Your task to perform on an android device: turn notification dots on Image 0: 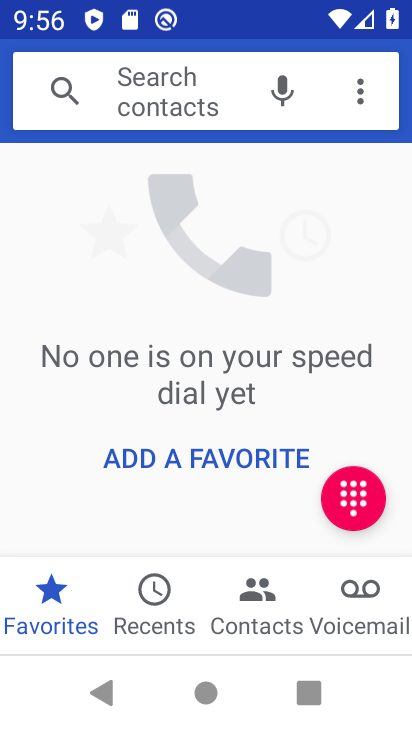
Step 0: press home button
Your task to perform on an android device: turn notification dots on Image 1: 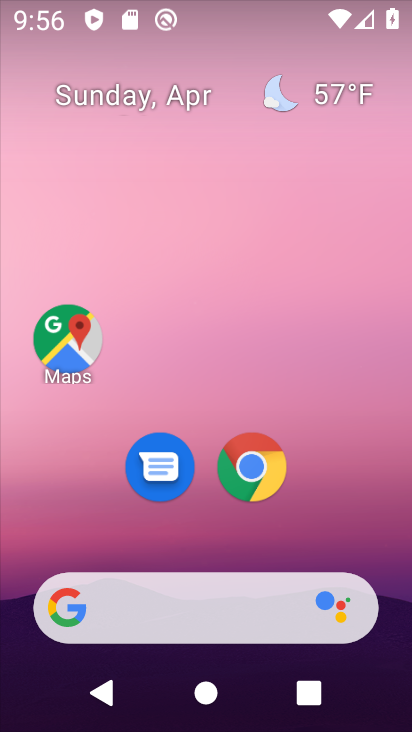
Step 1: drag from (360, 516) to (260, 46)
Your task to perform on an android device: turn notification dots on Image 2: 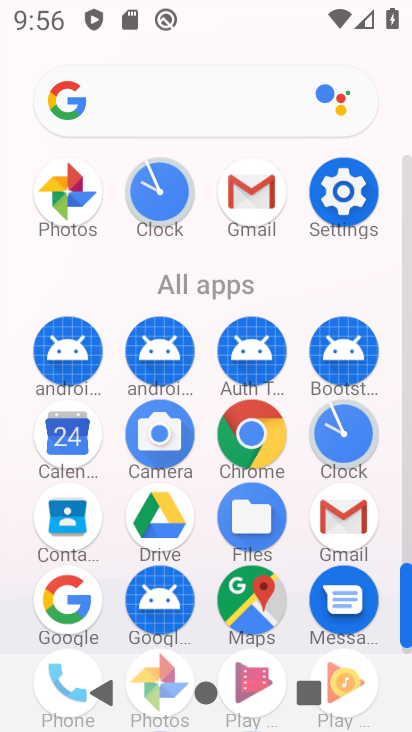
Step 2: click (362, 204)
Your task to perform on an android device: turn notification dots on Image 3: 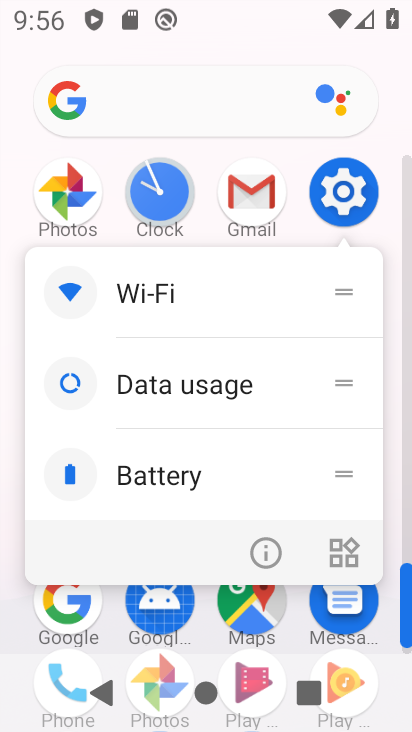
Step 3: click (354, 186)
Your task to perform on an android device: turn notification dots on Image 4: 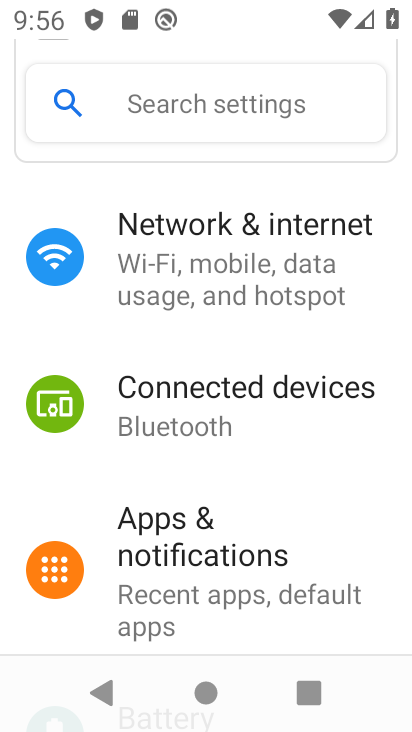
Step 4: drag from (205, 586) to (157, 118)
Your task to perform on an android device: turn notification dots on Image 5: 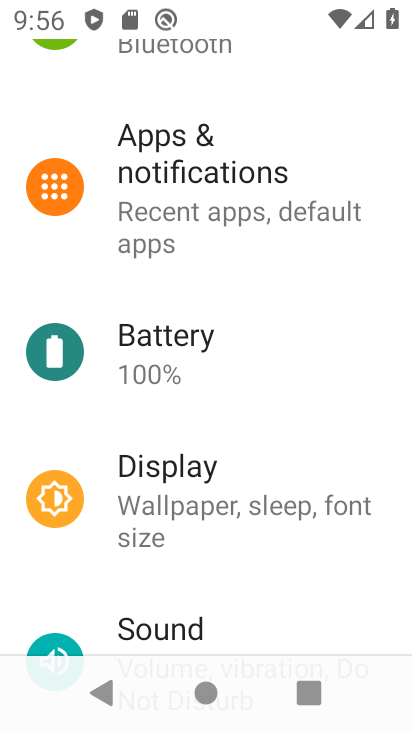
Step 5: drag from (228, 617) to (189, 72)
Your task to perform on an android device: turn notification dots on Image 6: 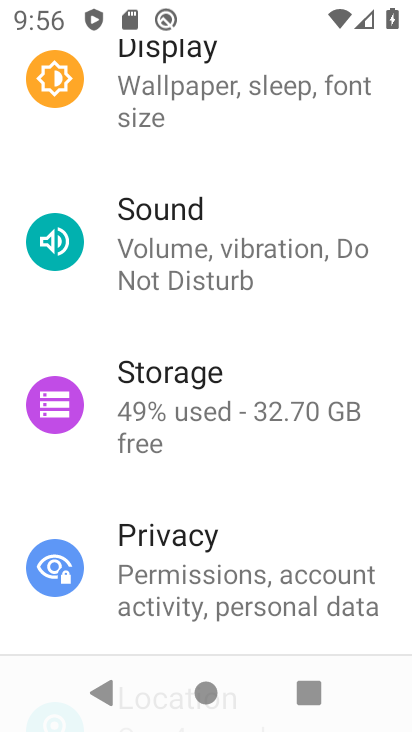
Step 6: drag from (170, 475) to (109, 150)
Your task to perform on an android device: turn notification dots on Image 7: 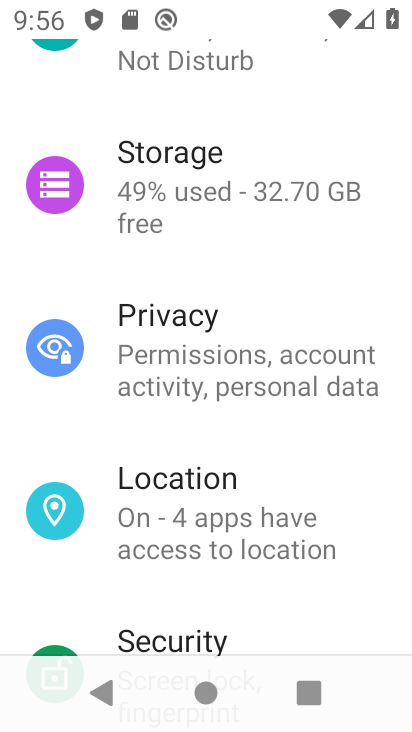
Step 7: drag from (216, 179) to (193, 642)
Your task to perform on an android device: turn notification dots on Image 8: 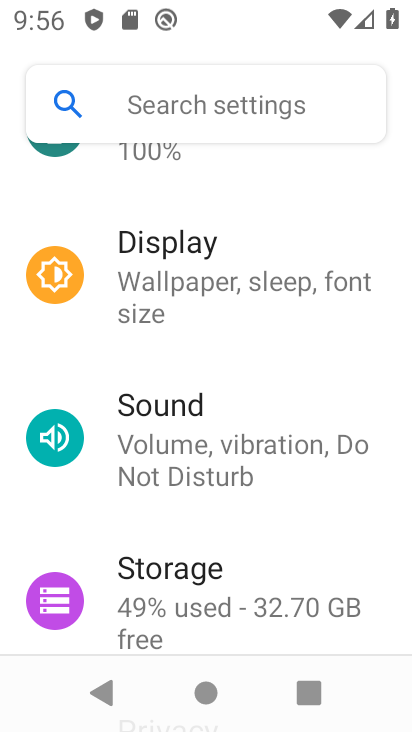
Step 8: drag from (216, 202) to (202, 693)
Your task to perform on an android device: turn notification dots on Image 9: 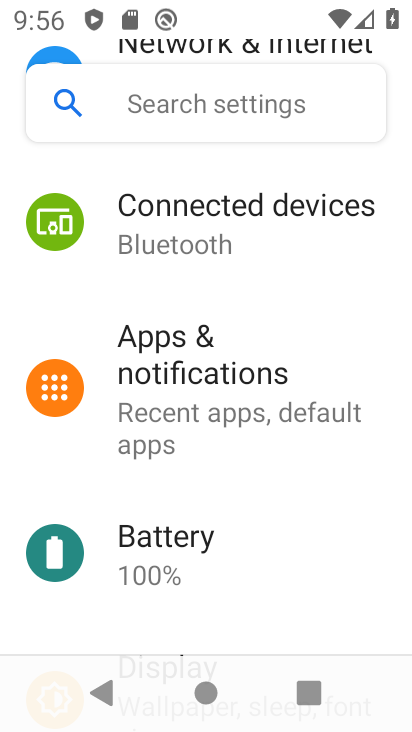
Step 9: click (183, 411)
Your task to perform on an android device: turn notification dots on Image 10: 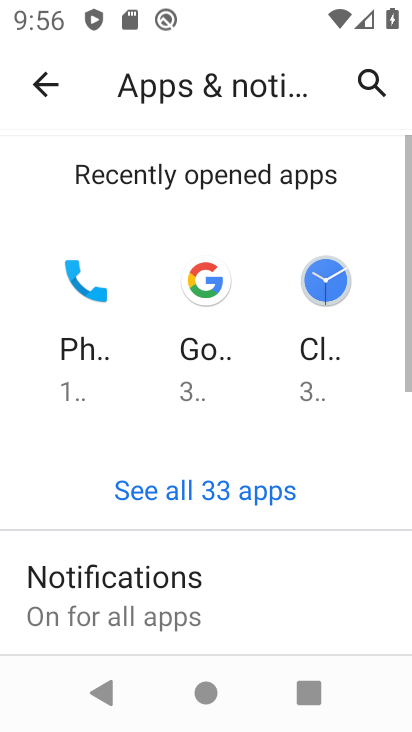
Step 10: click (187, 603)
Your task to perform on an android device: turn notification dots on Image 11: 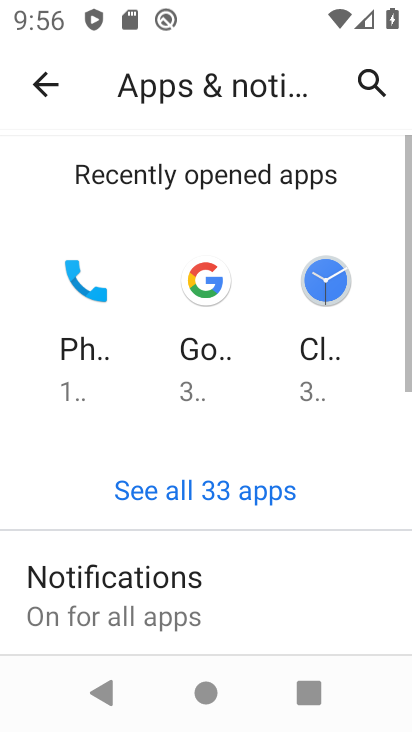
Step 11: drag from (183, 582) to (167, 19)
Your task to perform on an android device: turn notification dots on Image 12: 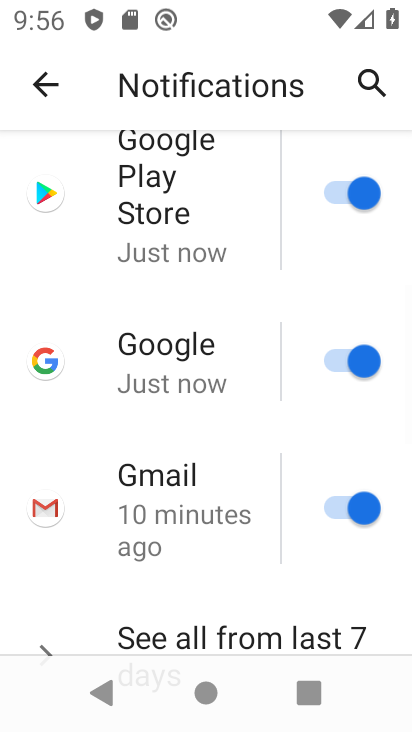
Step 12: drag from (193, 466) to (178, 13)
Your task to perform on an android device: turn notification dots on Image 13: 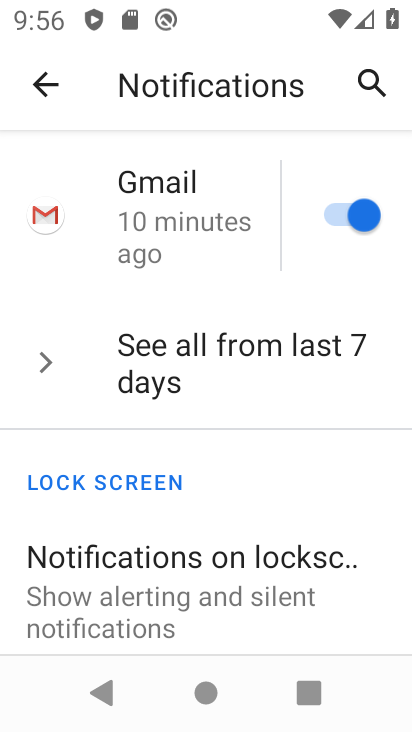
Step 13: drag from (211, 641) to (182, 114)
Your task to perform on an android device: turn notification dots on Image 14: 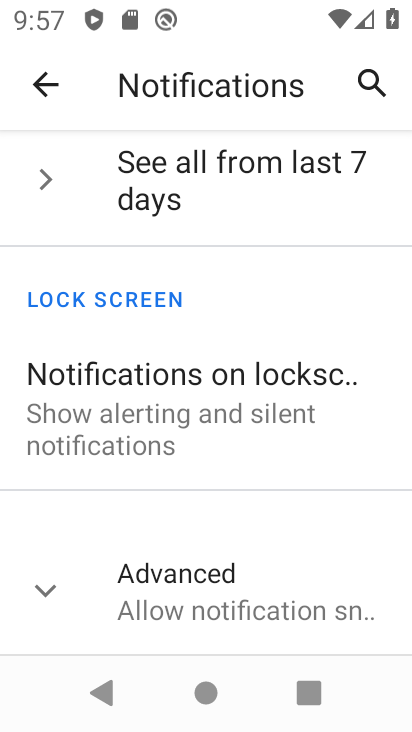
Step 14: click (193, 603)
Your task to perform on an android device: turn notification dots on Image 15: 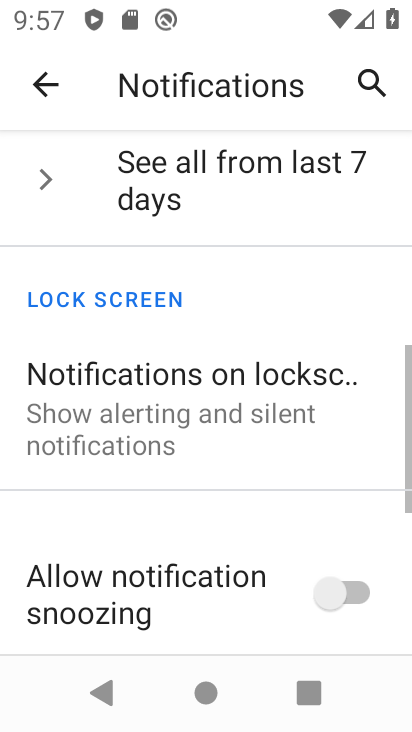
Step 15: task complete